Your task to perform on an android device: Check the weather Image 0: 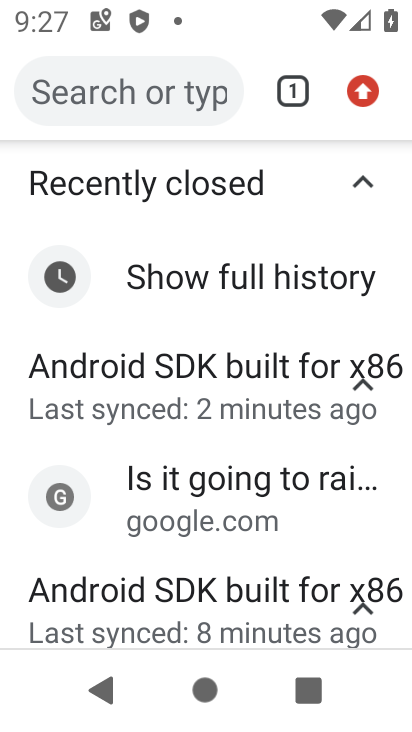
Step 0: press back button
Your task to perform on an android device: Check the weather Image 1: 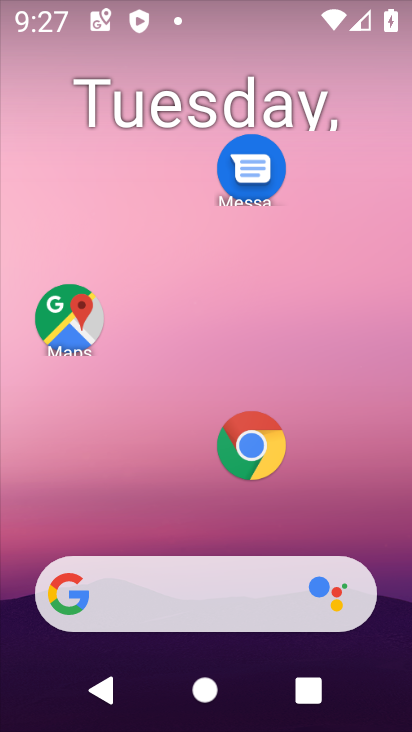
Step 1: press back button
Your task to perform on an android device: Check the weather Image 2: 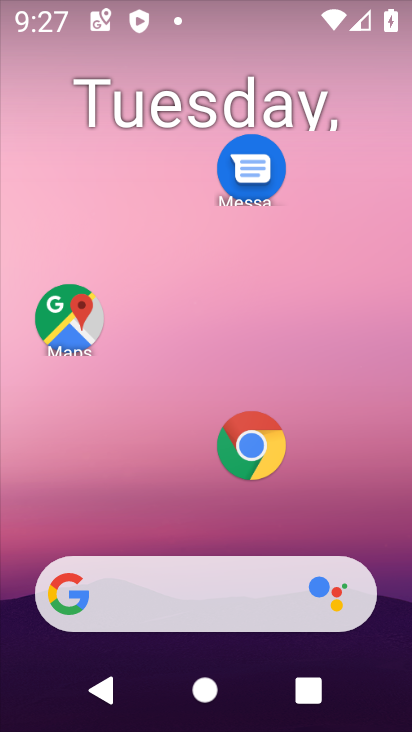
Step 2: click (159, 585)
Your task to perform on an android device: Check the weather Image 3: 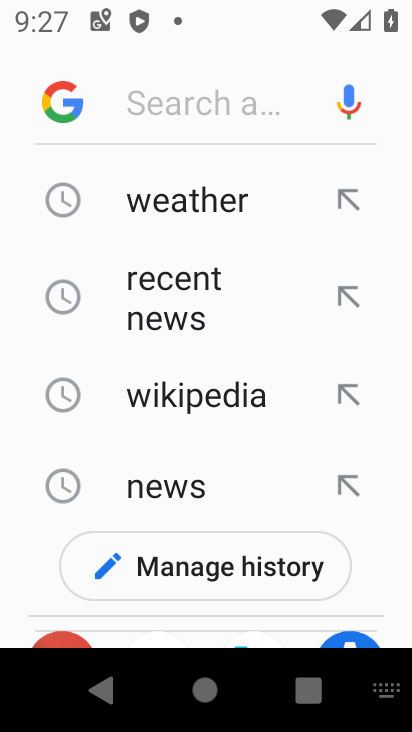
Step 3: click (189, 198)
Your task to perform on an android device: Check the weather Image 4: 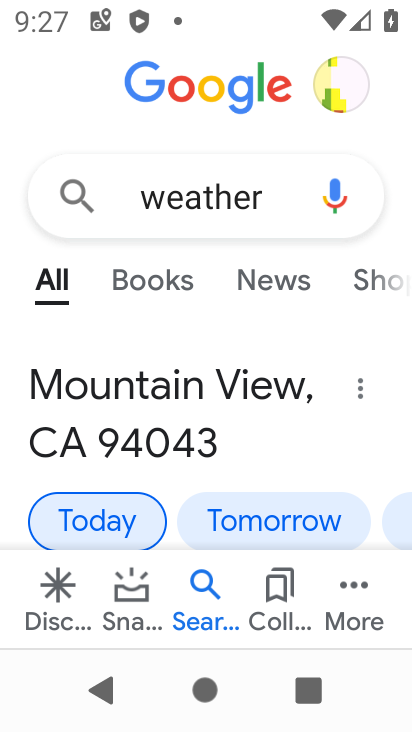
Step 4: task complete